Your task to perform on an android device: Open battery settings Image 0: 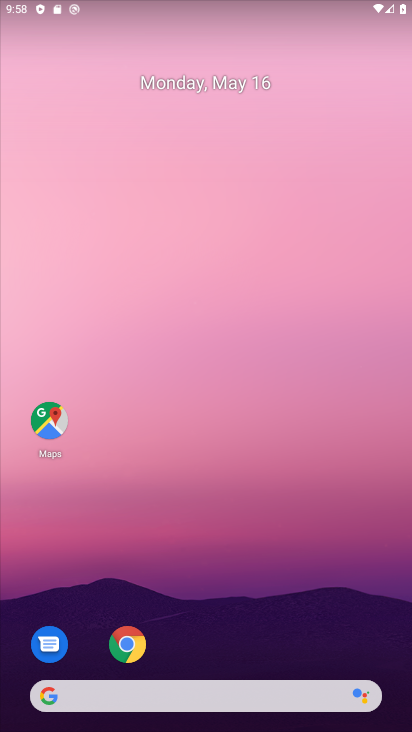
Step 0: drag from (209, 487) to (250, 141)
Your task to perform on an android device: Open battery settings Image 1: 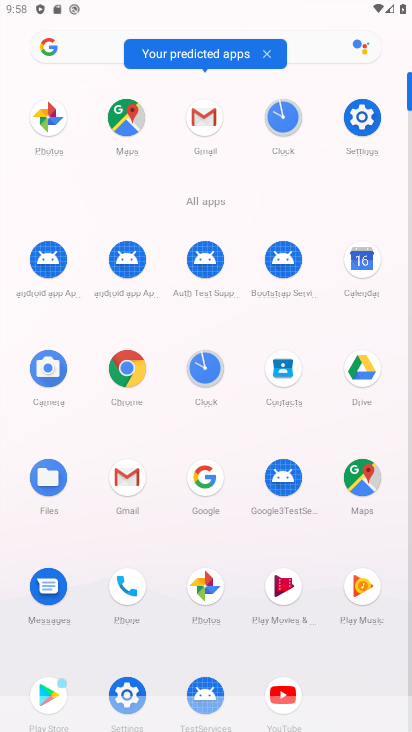
Step 1: drag from (148, 676) to (181, 445)
Your task to perform on an android device: Open battery settings Image 2: 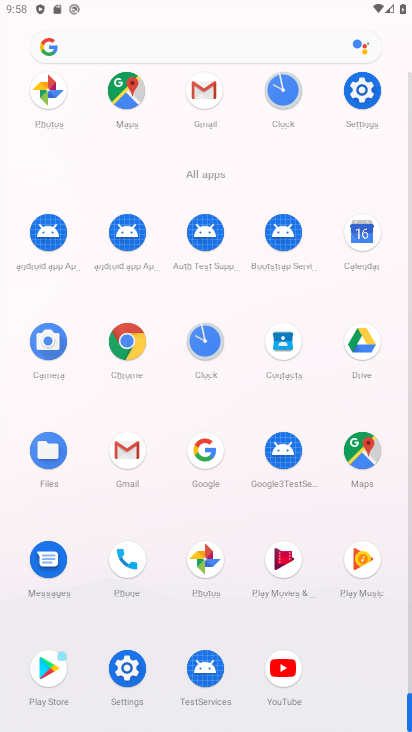
Step 2: click (112, 679)
Your task to perform on an android device: Open battery settings Image 3: 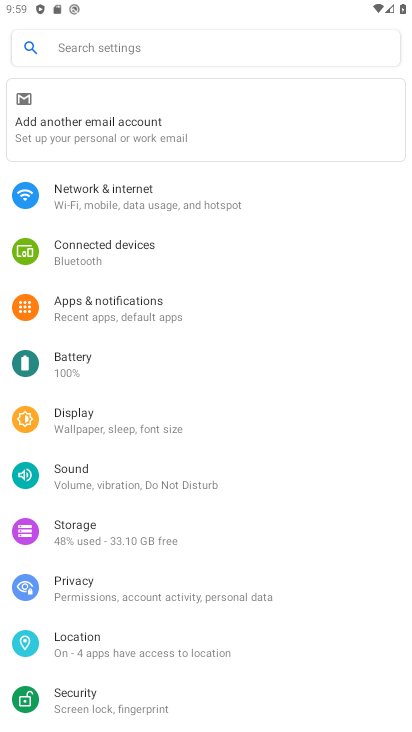
Step 3: click (141, 374)
Your task to perform on an android device: Open battery settings Image 4: 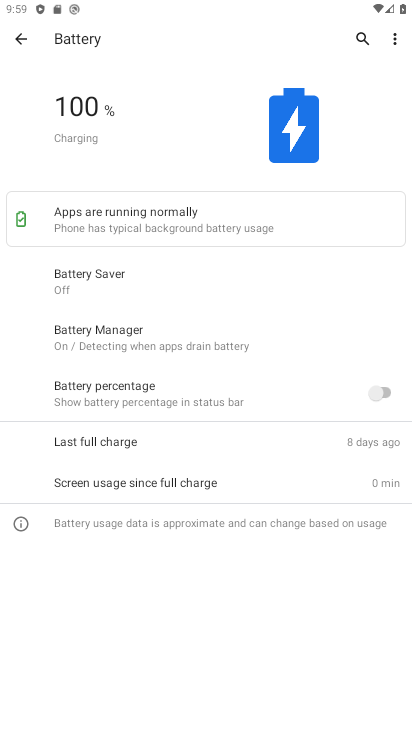
Step 4: task complete